Your task to perform on an android device: When is my next appointment? Image 0: 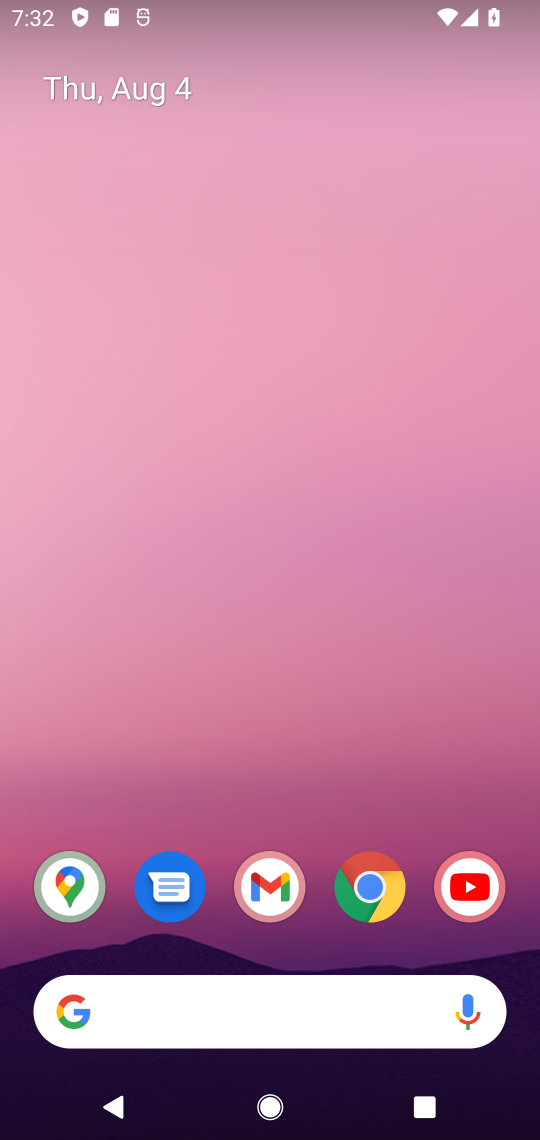
Step 0: drag from (229, 984) to (177, 471)
Your task to perform on an android device: When is my next appointment? Image 1: 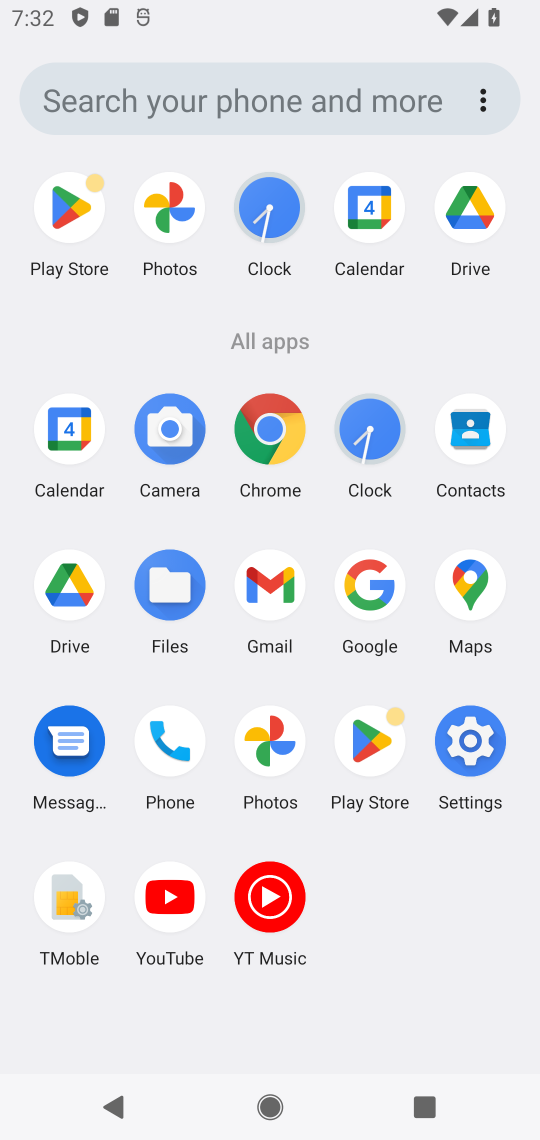
Step 1: click (67, 424)
Your task to perform on an android device: When is my next appointment? Image 2: 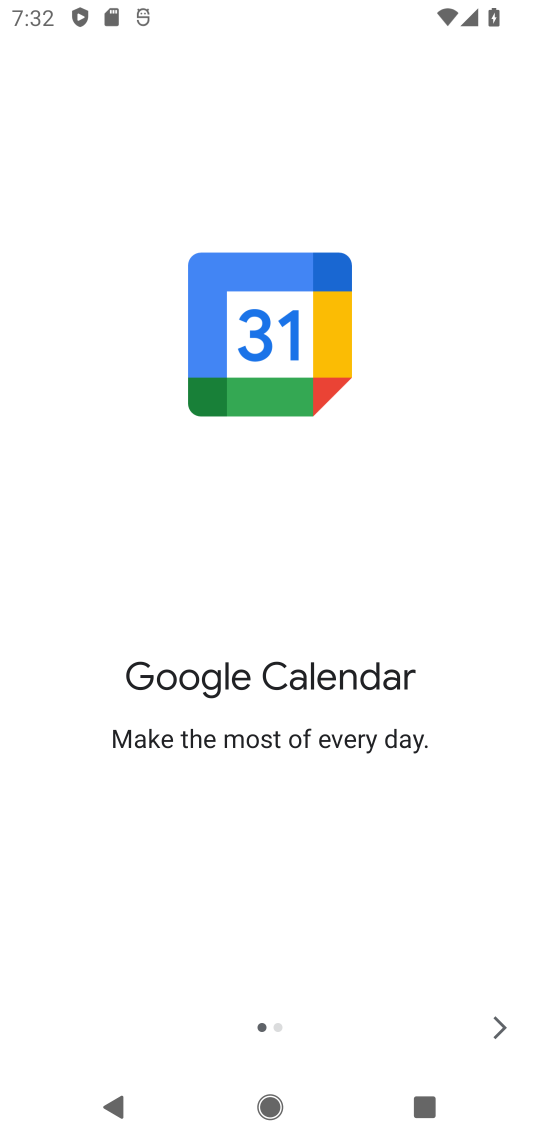
Step 2: click (495, 1014)
Your task to perform on an android device: When is my next appointment? Image 3: 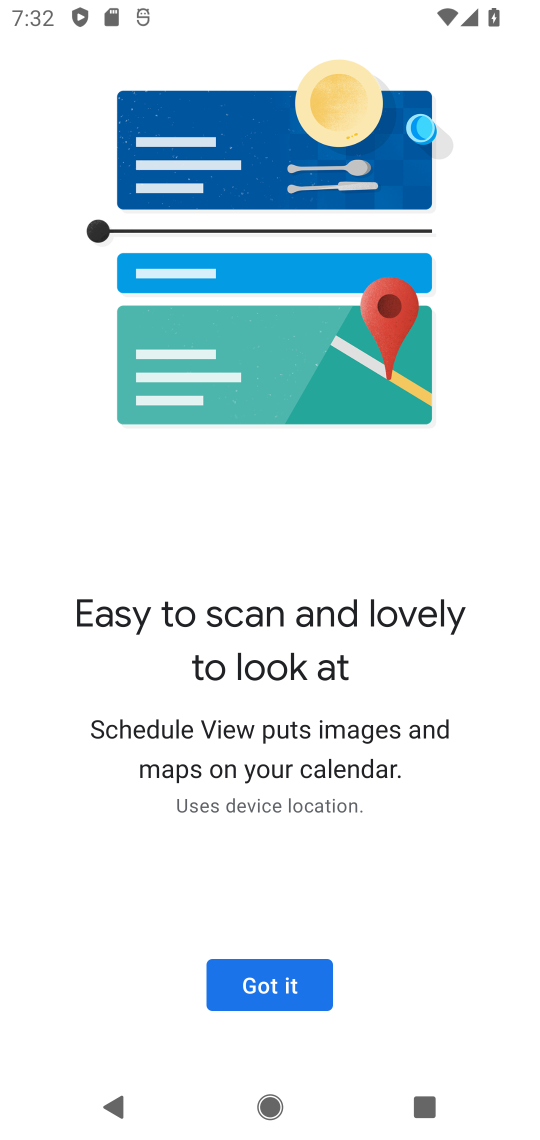
Step 3: click (317, 982)
Your task to perform on an android device: When is my next appointment? Image 4: 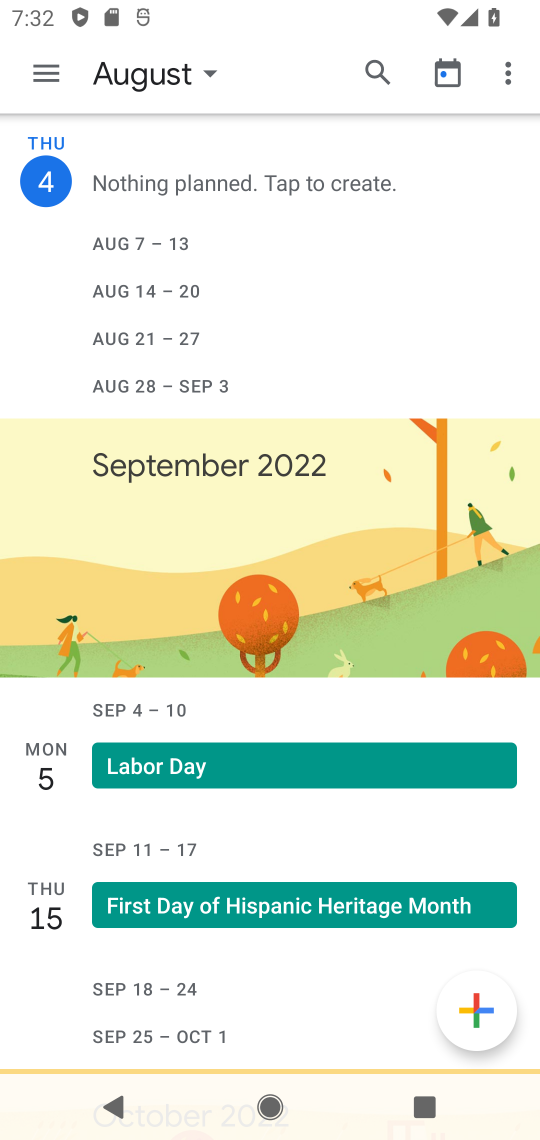
Step 4: click (169, 72)
Your task to perform on an android device: When is my next appointment? Image 5: 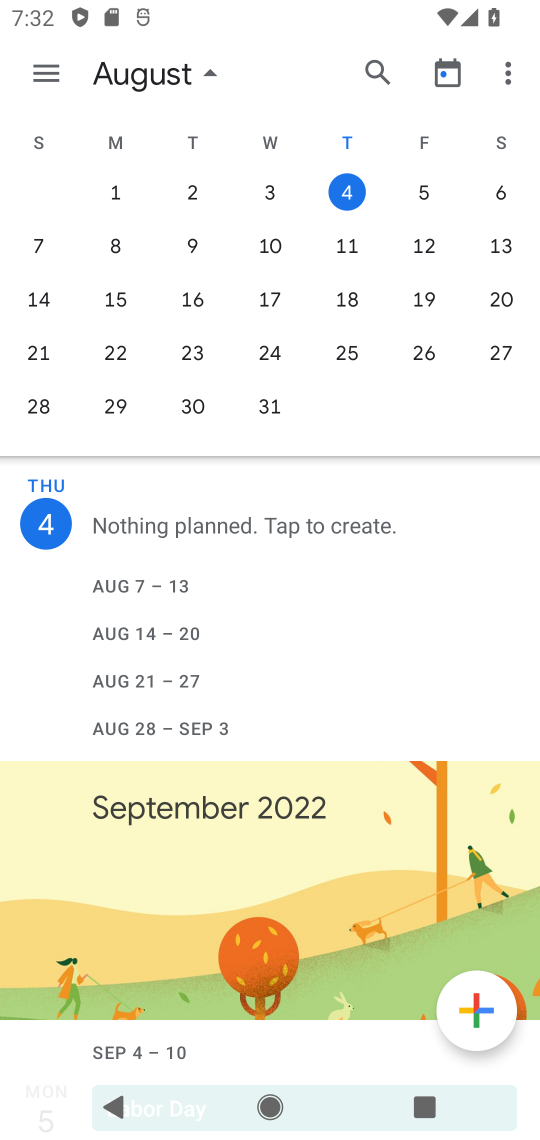
Step 5: click (45, 71)
Your task to perform on an android device: When is my next appointment? Image 6: 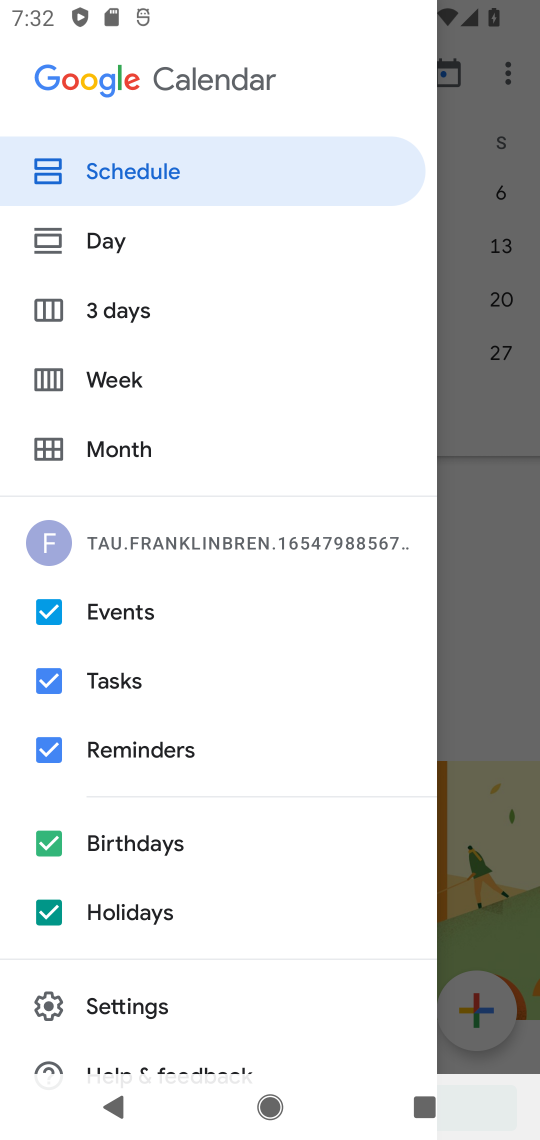
Step 6: click (125, 172)
Your task to perform on an android device: When is my next appointment? Image 7: 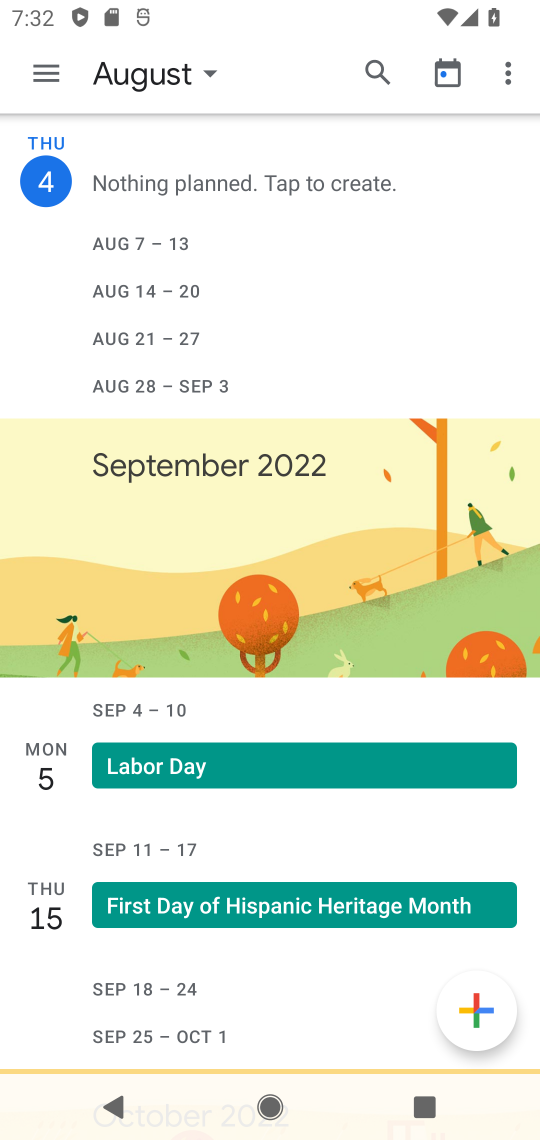
Step 7: task complete